Your task to perform on an android device: open chrome privacy settings Image 0: 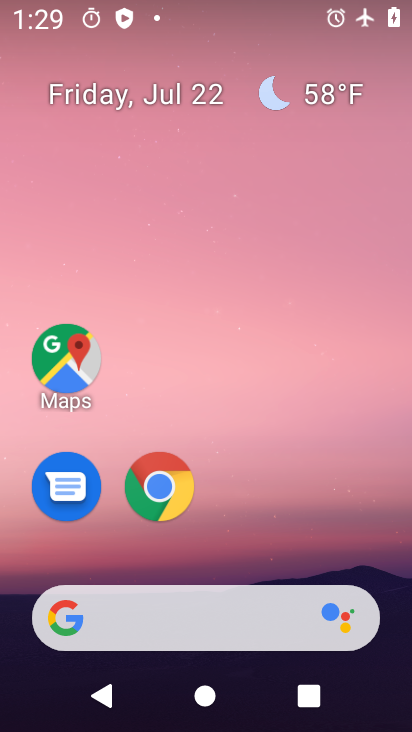
Step 0: drag from (331, 493) to (306, 8)
Your task to perform on an android device: open chrome privacy settings Image 1: 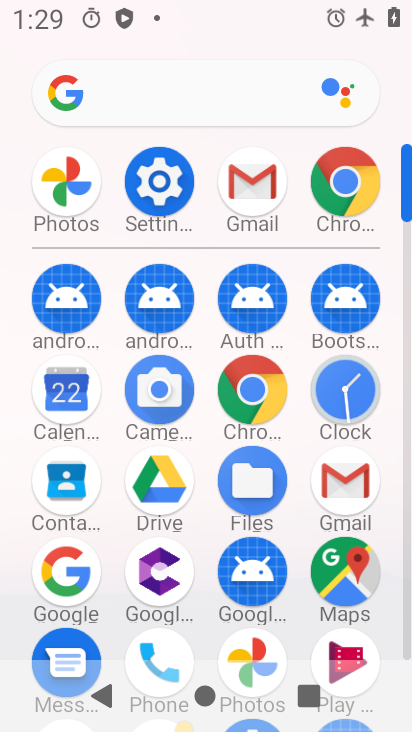
Step 1: click (253, 390)
Your task to perform on an android device: open chrome privacy settings Image 2: 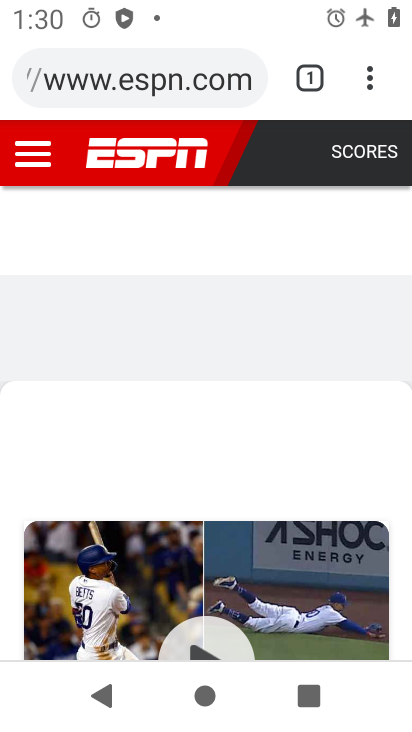
Step 2: click (371, 85)
Your task to perform on an android device: open chrome privacy settings Image 3: 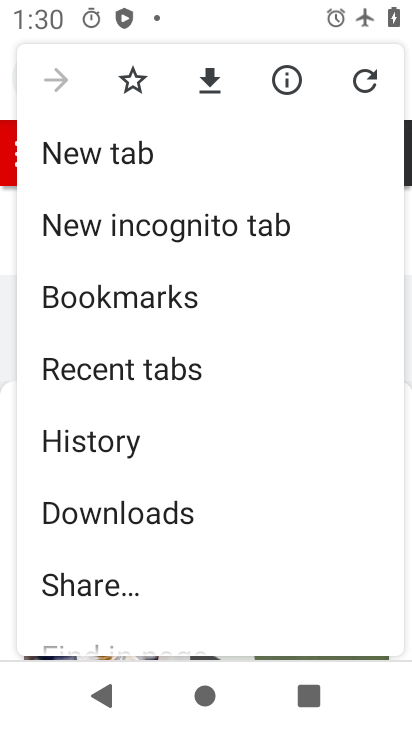
Step 3: drag from (325, 378) to (332, 330)
Your task to perform on an android device: open chrome privacy settings Image 4: 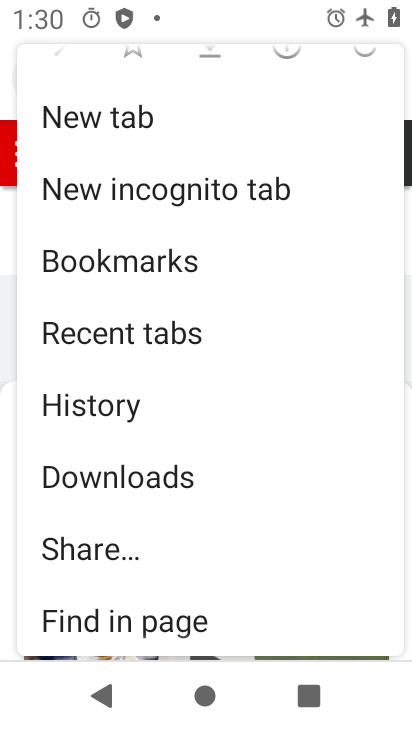
Step 4: drag from (333, 421) to (332, 350)
Your task to perform on an android device: open chrome privacy settings Image 5: 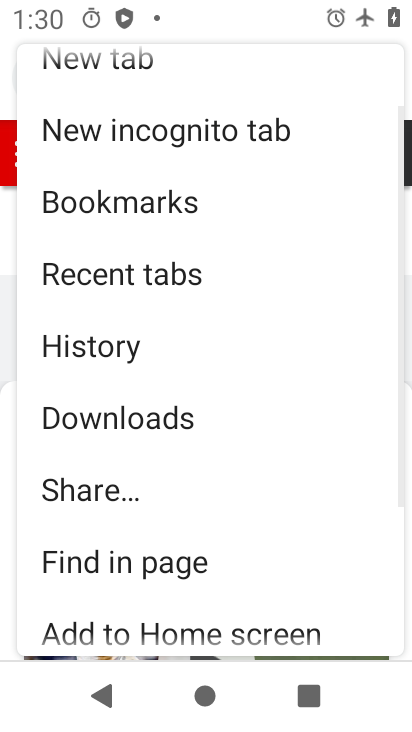
Step 5: drag from (331, 449) to (331, 345)
Your task to perform on an android device: open chrome privacy settings Image 6: 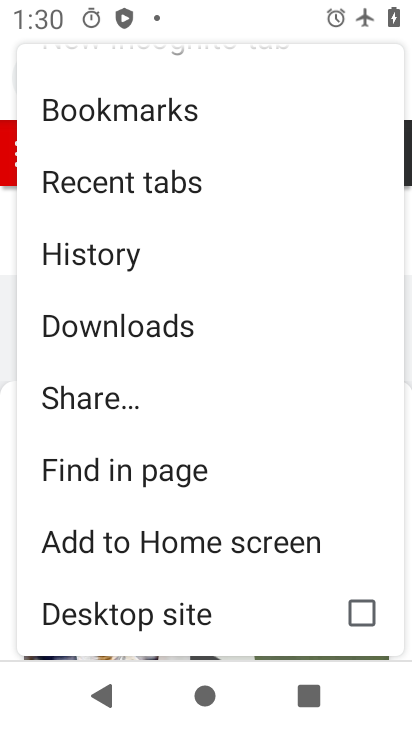
Step 6: drag from (329, 443) to (329, 321)
Your task to perform on an android device: open chrome privacy settings Image 7: 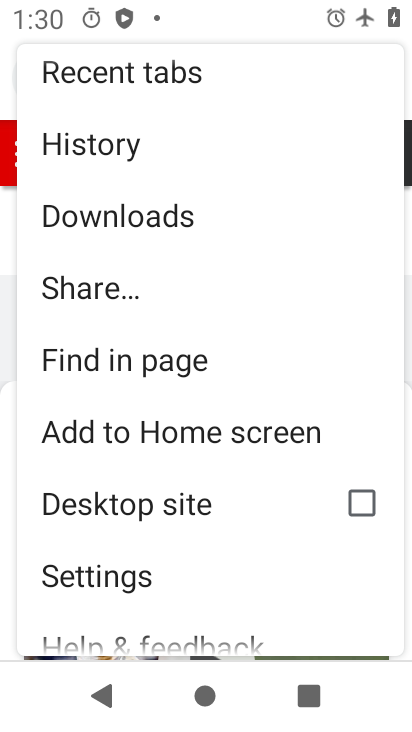
Step 7: drag from (325, 459) to (325, 316)
Your task to perform on an android device: open chrome privacy settings Image 8: 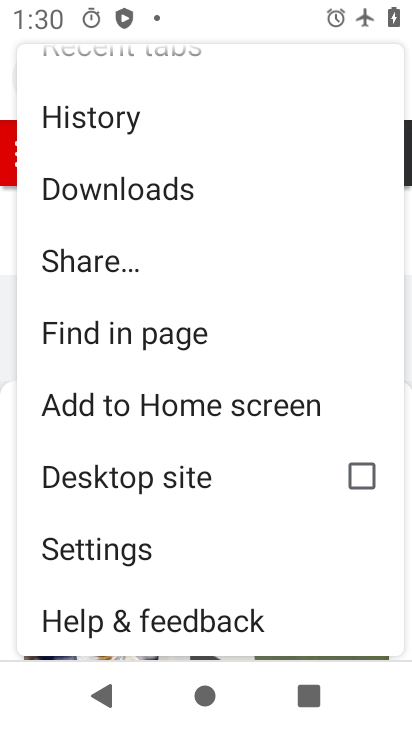
Step 8: click (178, 565)
Your task to perform on an android device: open chrome privacy settings Image 9: 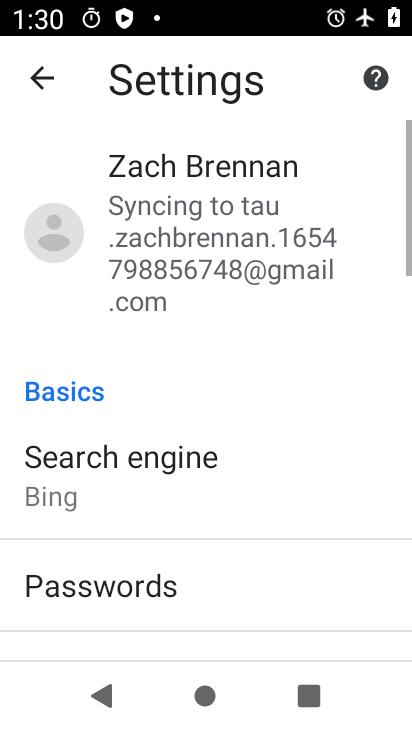
Step 9: drag from (292, 527) to (301, 396)
Your task to perform on an android device: open chrome privacy settings Image 10: 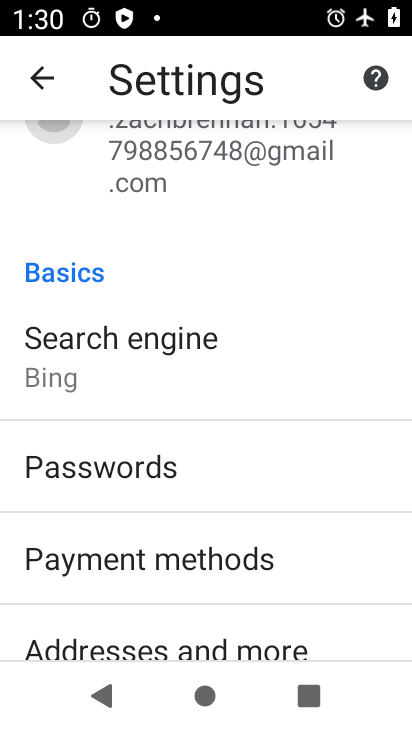
Step 10: drag from (309, 487) to (315, 396)
Your task to perform on an android device: open chrome privacy settings Image 11: 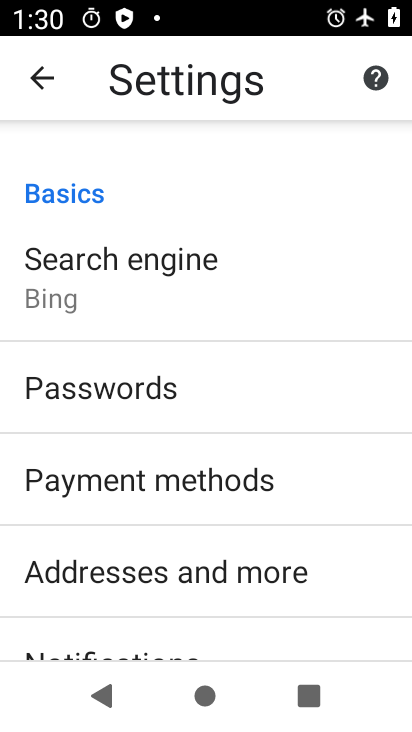
Step 11: drag from (327, 506) to (328, 409)
Your task to perform on an android device: open chrome privacy settings Image 12: 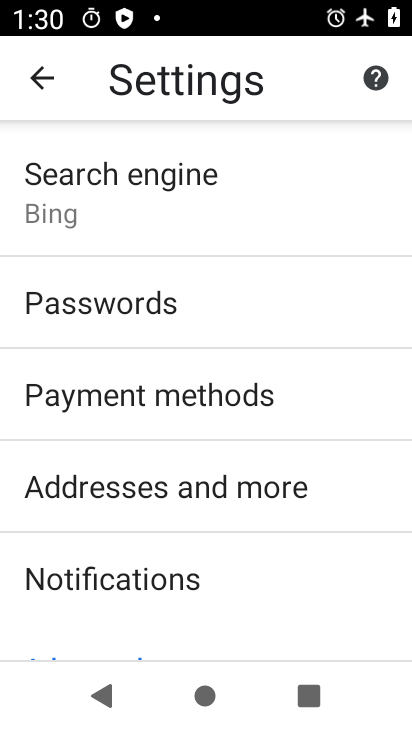
Step 12: drag from (330, 513) to (336, 417)
Your task to perform on an android device: open chrome privacy settings Image 13: 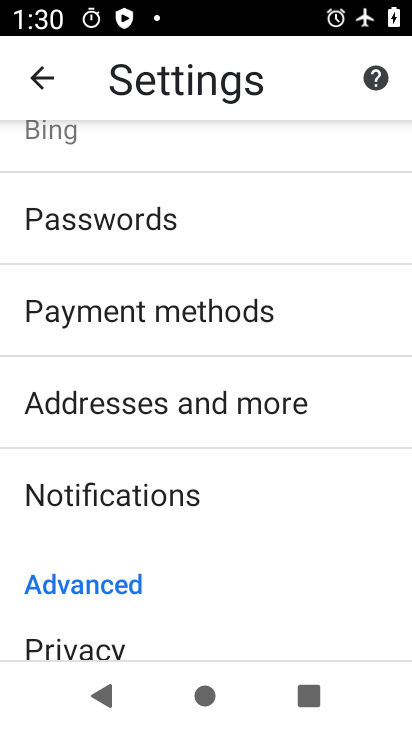
Step 13: drag from (329, 532) to (334, 429)
Your task to perform on an android device: open chrome privacy settings Image 14: 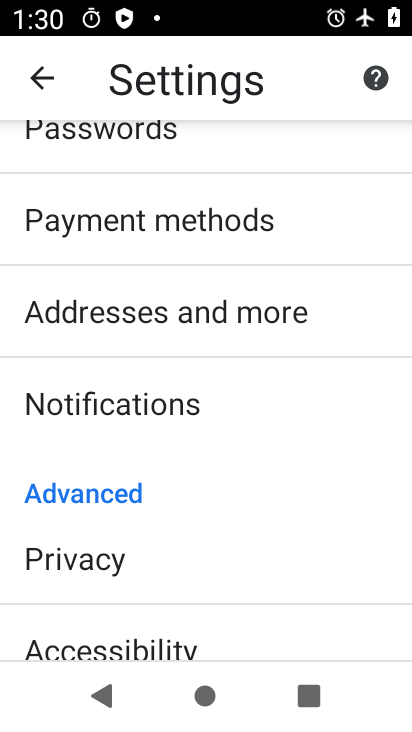
Step 14: drag from (322, 526) to (322, 420)
Your task to perform on an android device: open chrome privacy settings Image 15: 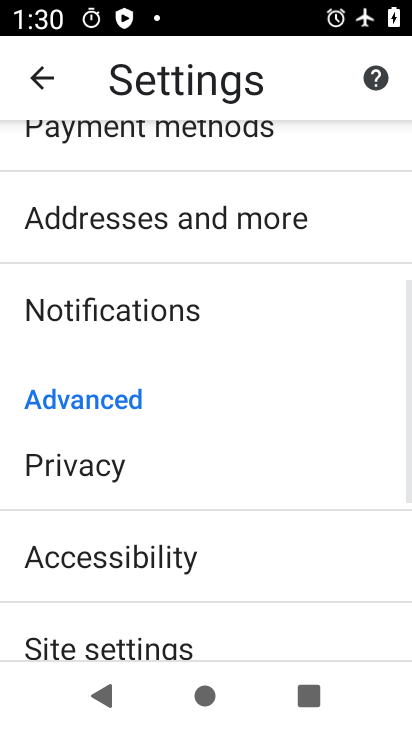
Step 15: drag from (308, 541) to (311, 421)
Your task to perform on an android device: open chrome privacy settings Image 16: 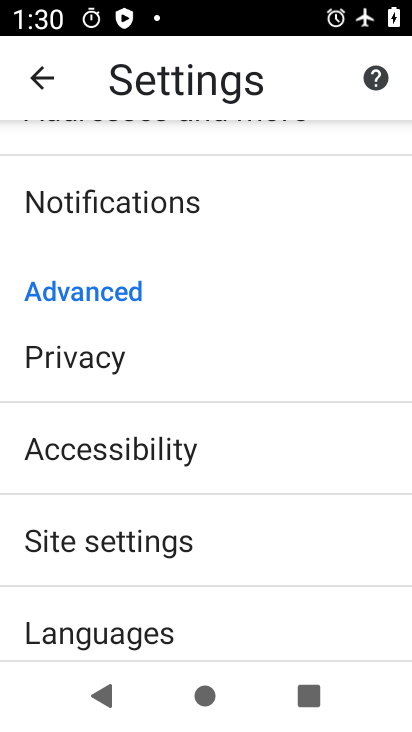
Step 16: click (298, 383)
Your task to perform on an android device: open chrome privacy settings Image 17: 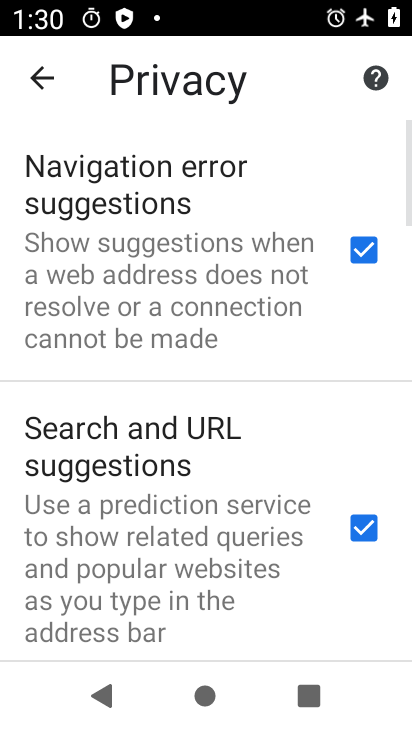
Step 17: task complete